Your task to perform on an android device: Open Chrome and go to settings Image 0: 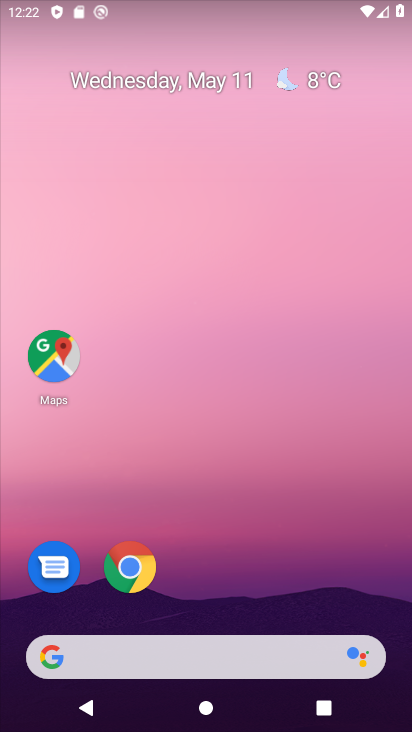
Step 0: click (145, 569)
Your task to perform on an android device: Open Chrome and go to settings Image 1: 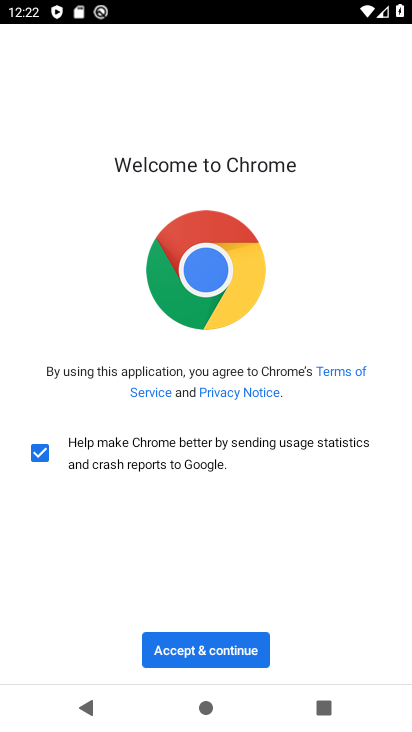
Step 1: click (222, 650)
Your task to perform on an android device: Open Chrome and go to settings Image 2: 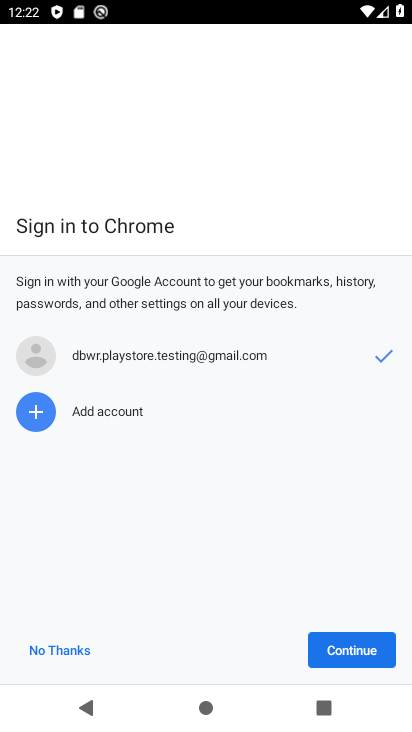
Step 2: click (339, 654)
Your task to perform on an android device: Open Chrome and go to settings Image 3: 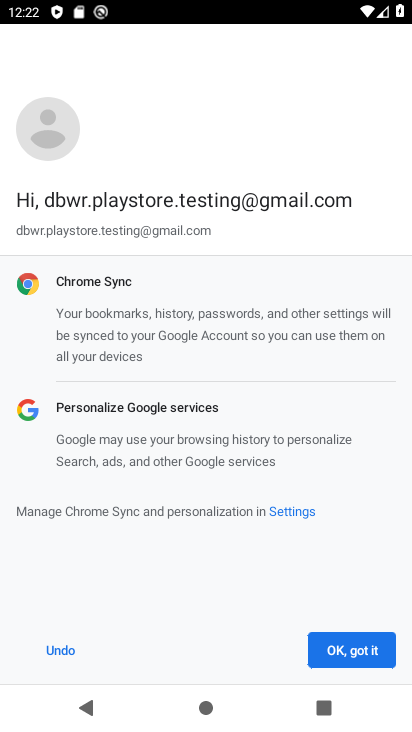
Step 3: click (345, 653)
Your task to perform on an android device: Open Chrome and go to settings Image 4: 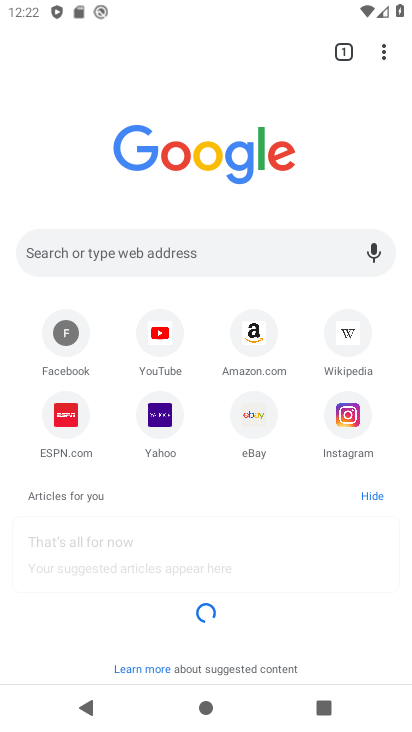
Step 4: task complete